Your task to perform on an android device: Open settings on Google Maps Image 0: 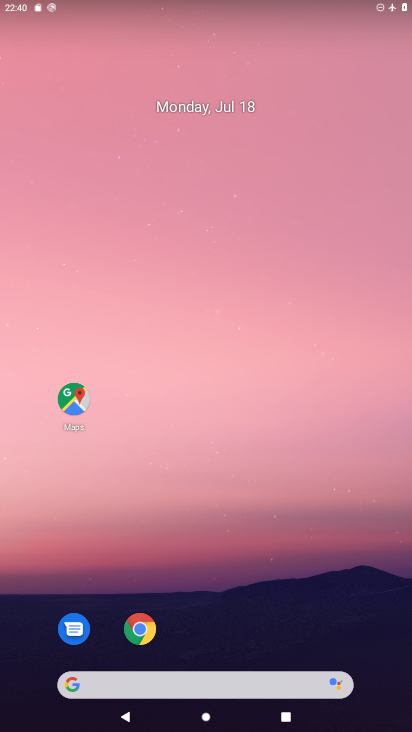
Step 0: drag from (296, 519) to (231, 74)
Your task to perform on an android device: Open settings on Google Maps Image 1: 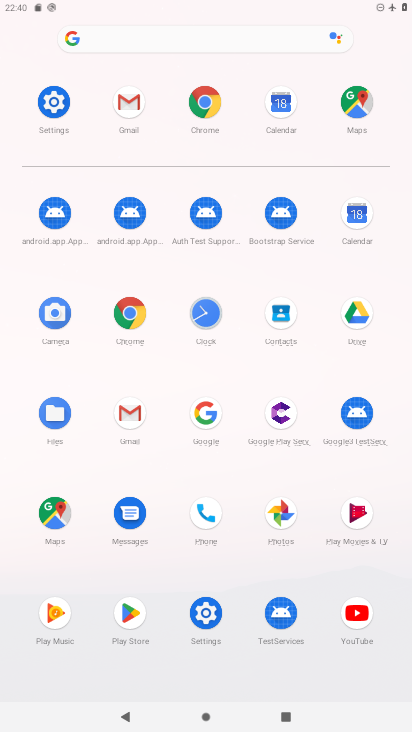
Step 1: click (360, 100)
Your task to perform on an android device: Open settings on Google Maps Image 2: 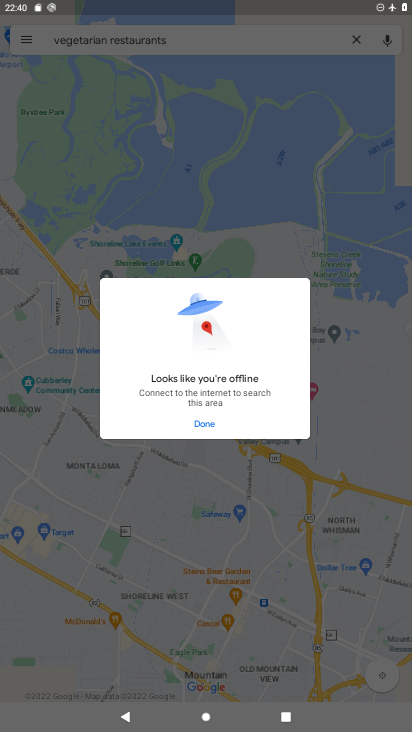
Step 2: click (210, 417)
Your task to perform on an android device: Open settings on Google Maps Image 3: 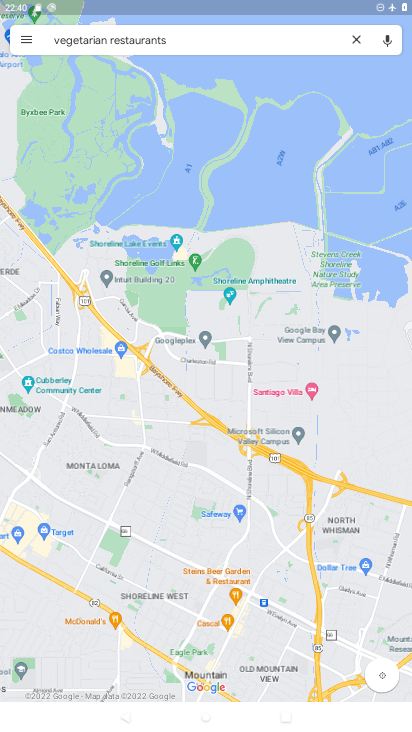
Step 3: click (31, 41)
Your task to perform on an android device: Open settings on Google Maps Image 4: 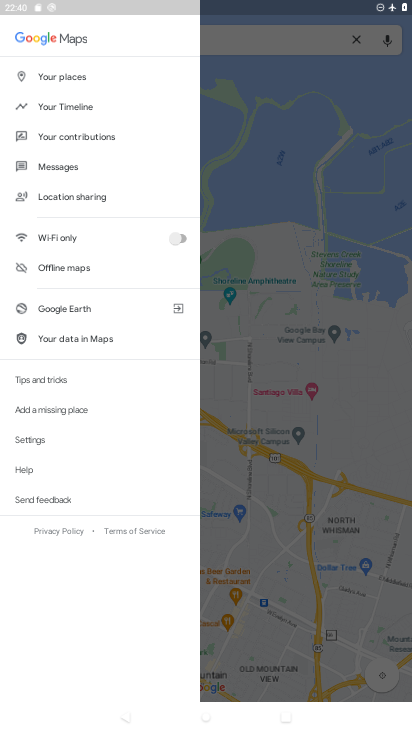
Step 4: click (49, 435)
Your task to perform on an android device: Open settings on Google Maps Image 5: 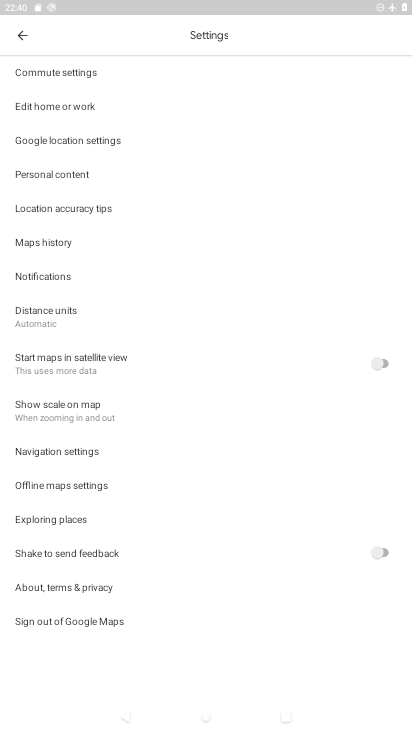
Step 5: task complete